Your task to perform on an android device: set the timer Image 0: 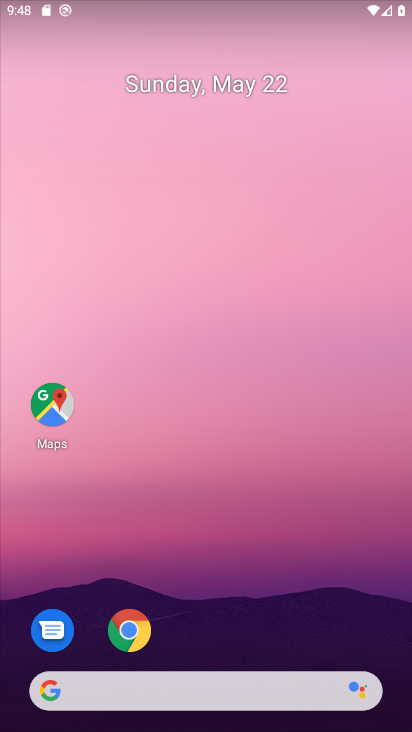
Step 0: drag from (394, 701) to (332, 232)
Your task to perform on an android device: set the timer Image 1: 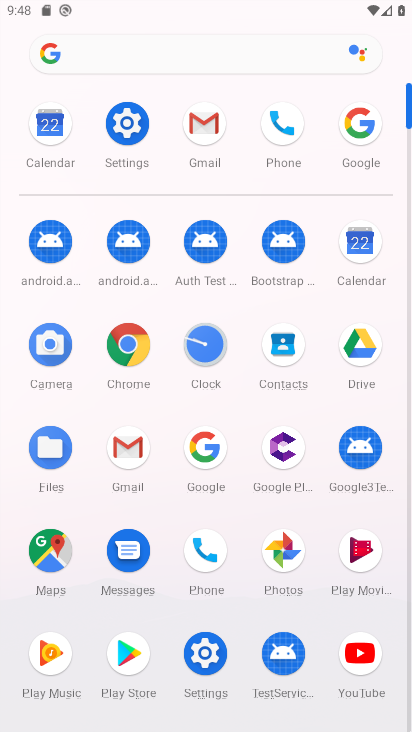
Step 1: click (211, 358)
Your task to perform on an android device: set the timer Image 2: 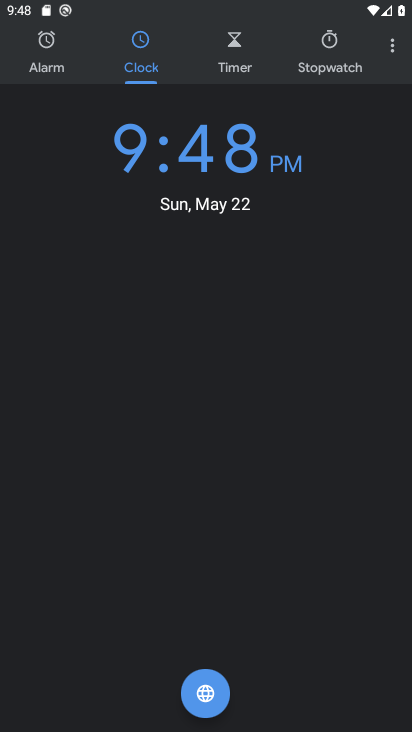
Step 2: click (320, 53)
Your task to perform on an android device: set the timer Image 3: 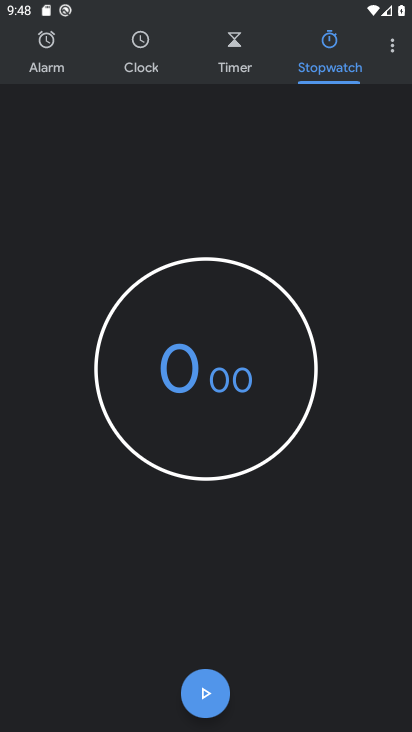
Step 3: click (214, 688)
Your task to perform on an android device: set the timer Image 4: 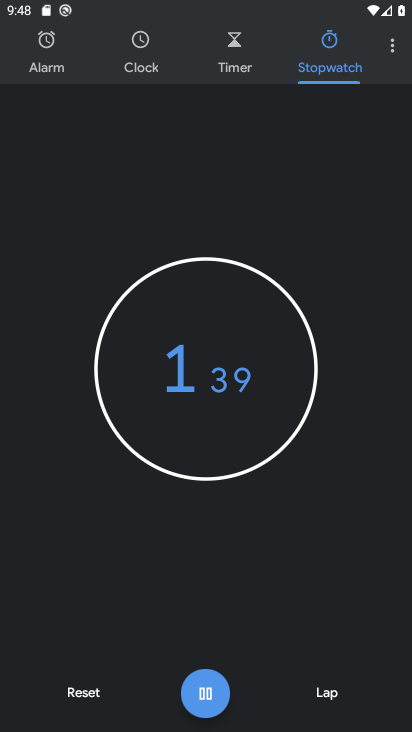
Step 4: task complete